Your task to perform on an android device: View the shopping cart on ebay. Search for alienware area 51 on ebay, select the first entry, add it to the cart, then select checkout. Image 0: 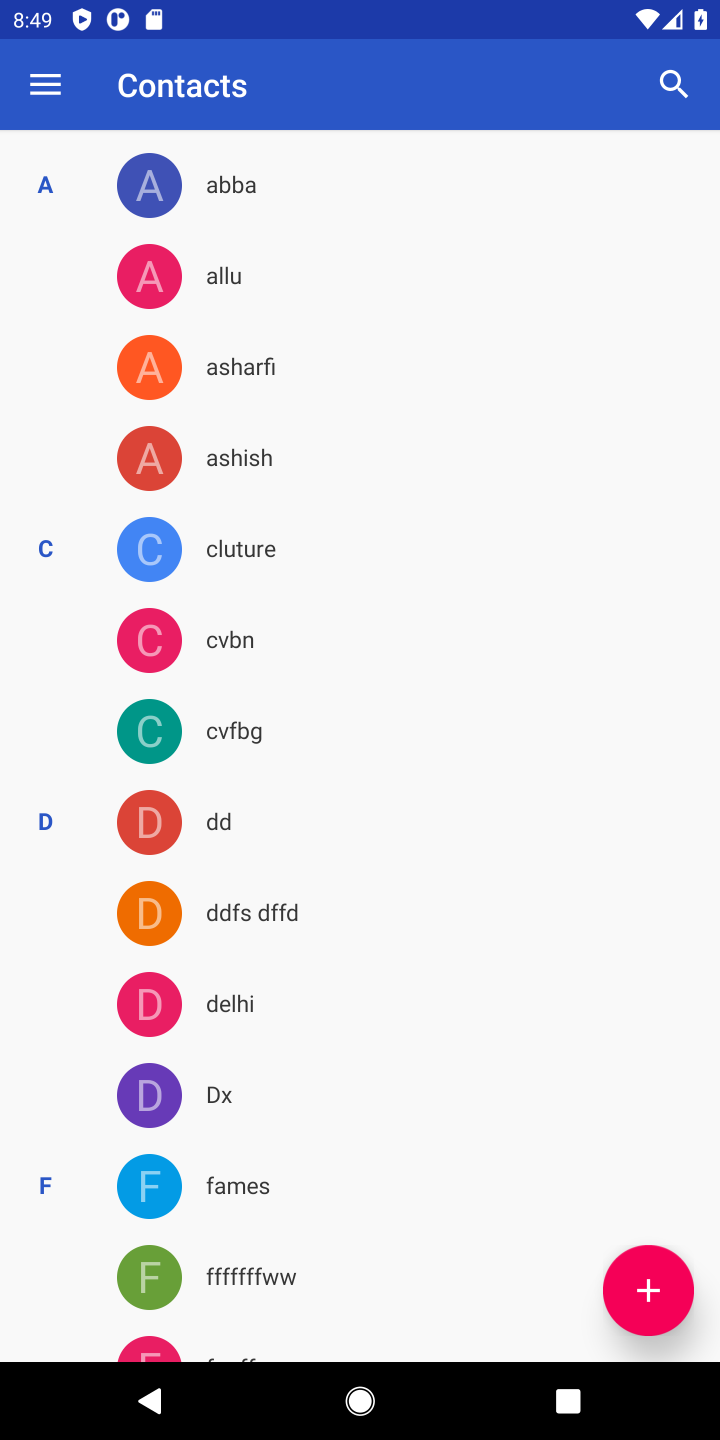
Step 0: press home button
Your task to perform on an android device: View the shopping cart on ebay. Search for alienware area 51 on ebay, select the first entry, add it to the cart, then select checkout. Image 1: 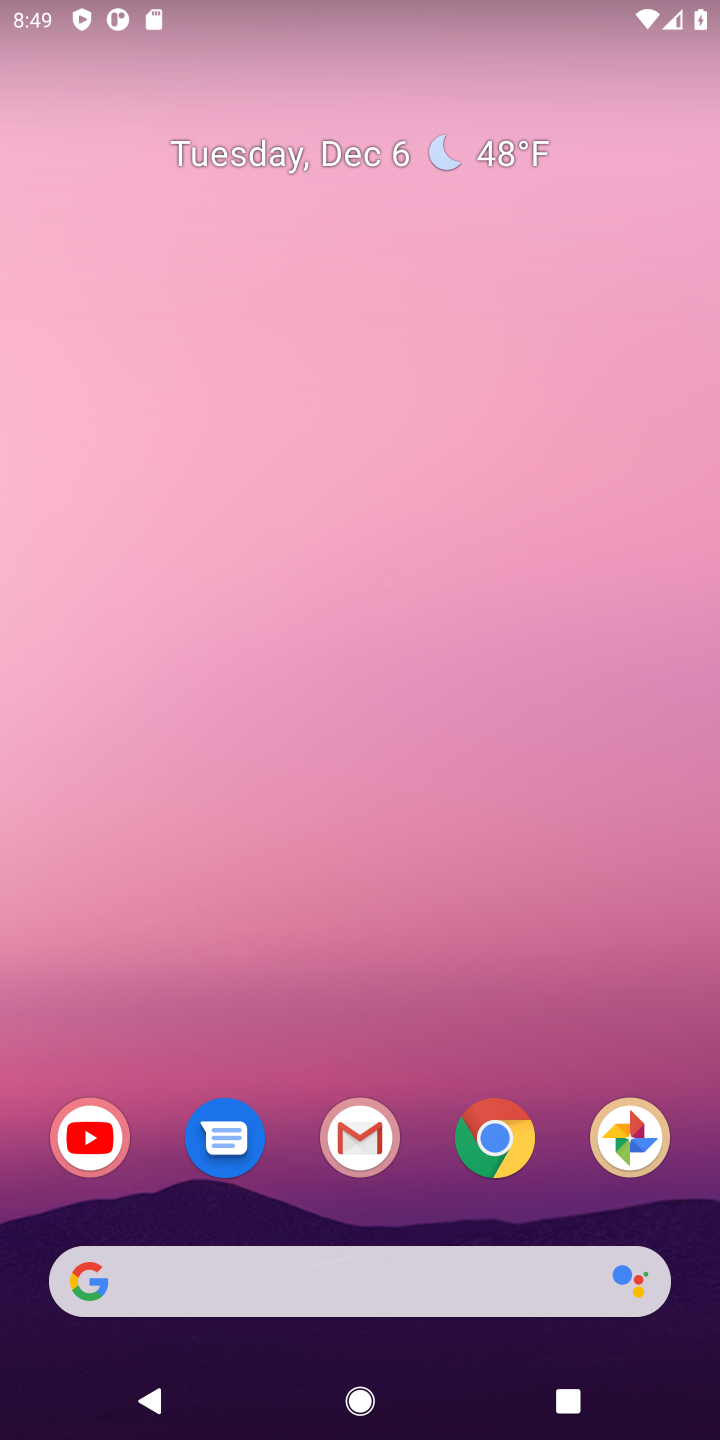
Step 1: click (485, 1137)
Your task to perform on an android device: View the shopping cart on ebay. Search for alienware area 51 on ebay, select the first entry, add it to the cart, then select checkout. Image 2: 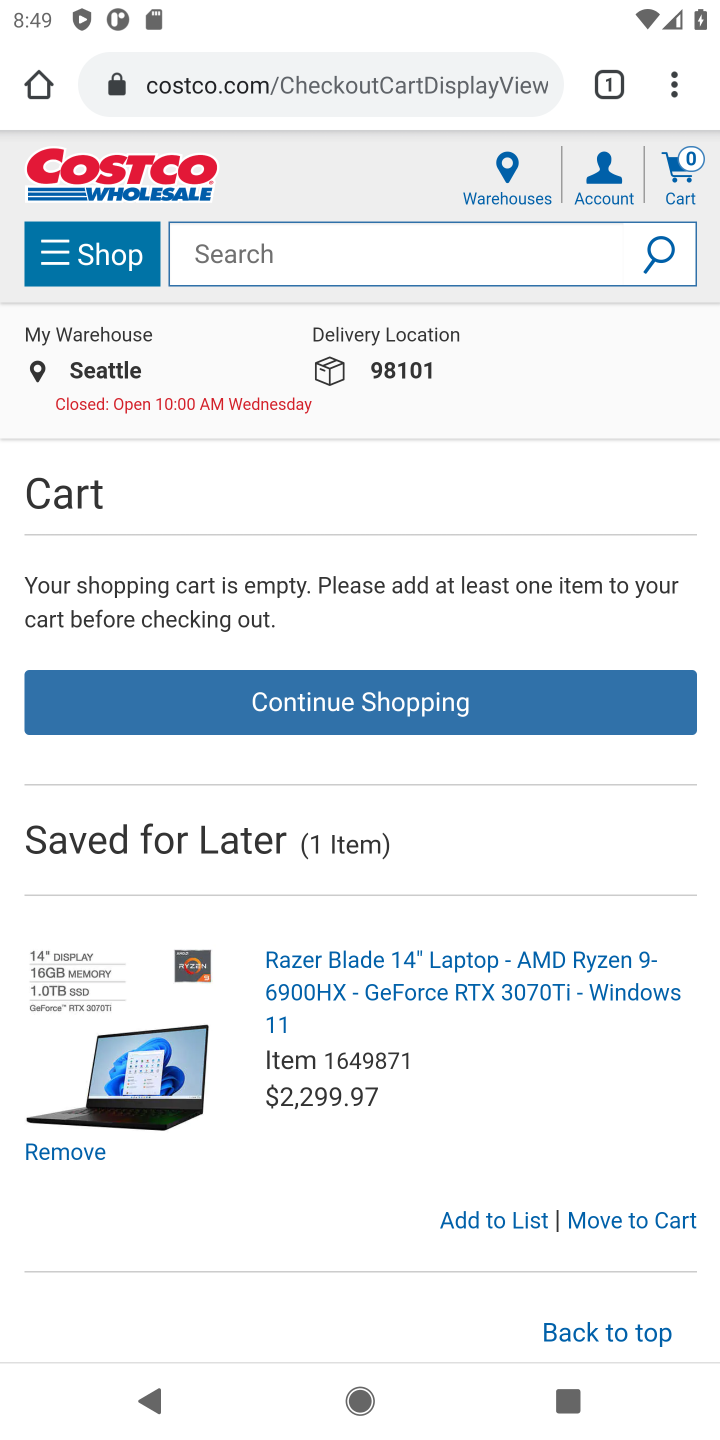
Step 2: click (255, 80)
Your task to perform on an android device: View the shopping cart on ebay. Search for alienware area 51 on ebay, select the first entry, add it to the cart, then select checkout. Image 3: 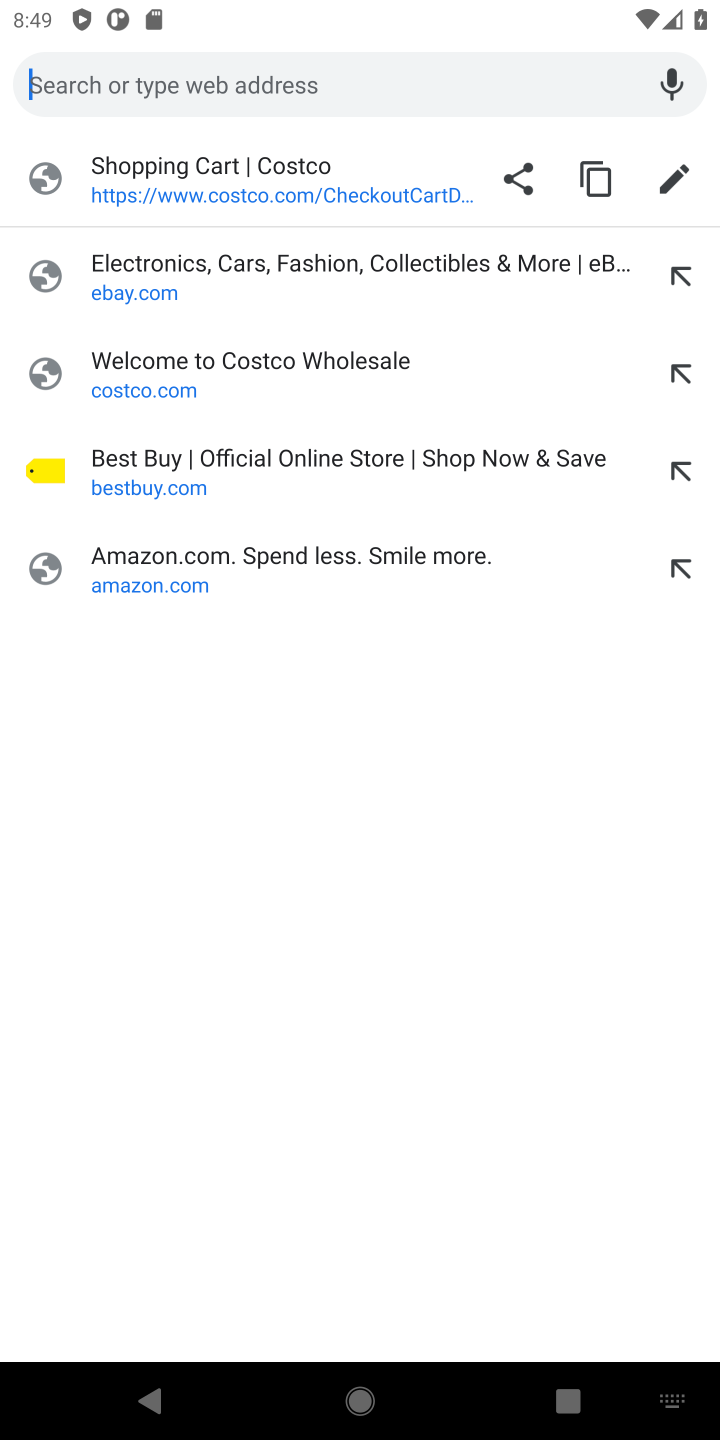
Step 3: click (133, 295)
Your task to perform on an android device: View the shopping cart on ebay. Search for alienware area 51 on ebay, select the first entry, add it to the cart, then select checkout. Image 4: 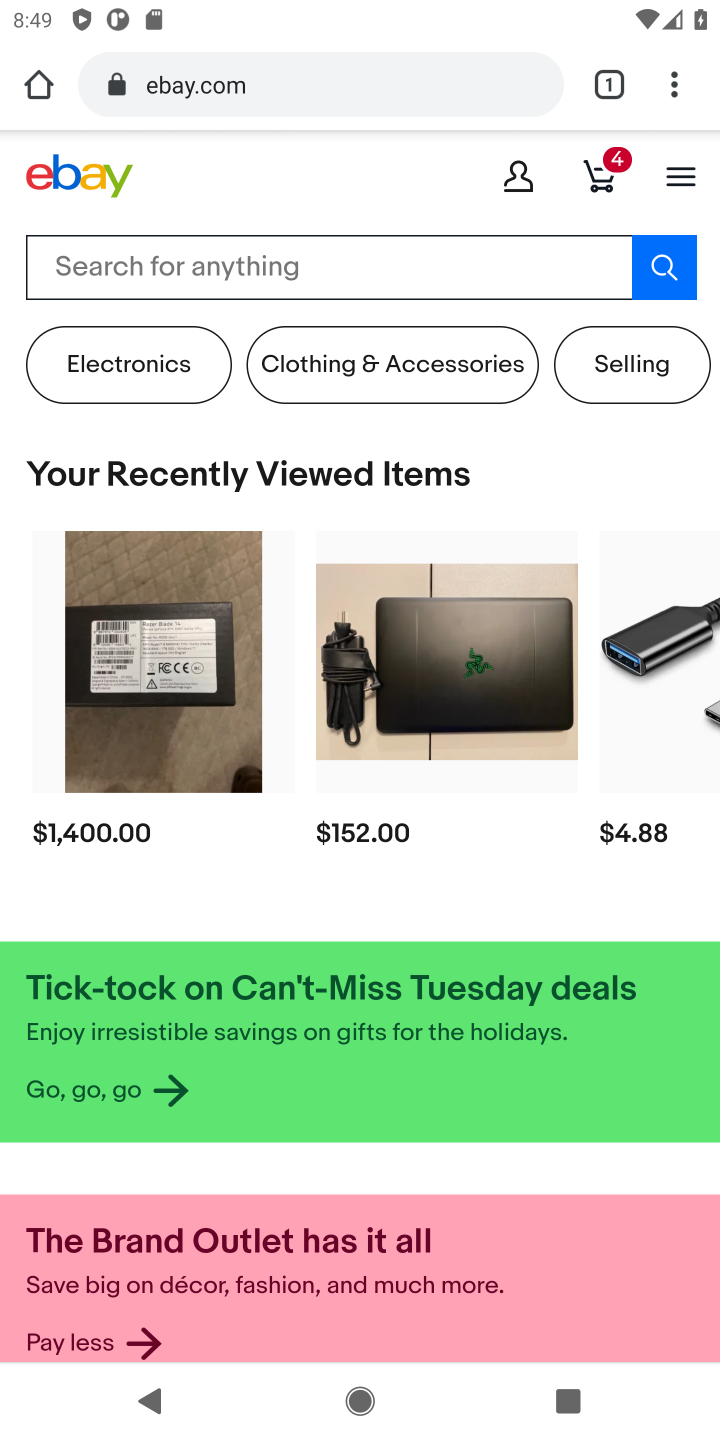
Step 4: click (600, 182)
Your task to perform on an android device: View the shopping cart on ebay. Search for alienware area 51 on ebay, select the first entry, add it to the cart, then select checkout. Image 5: 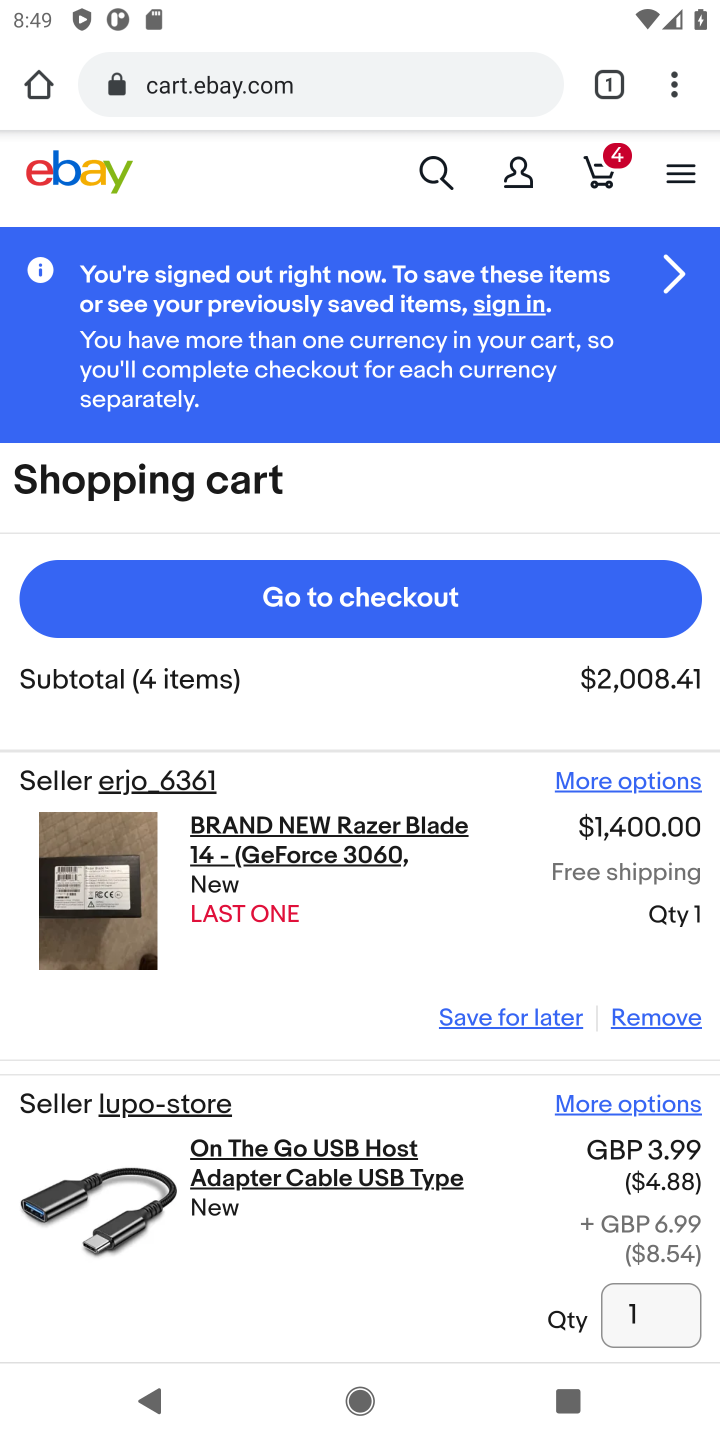
Step 5: click (444, 167)
Your task to perform on an android device: View the shopping cart on ebay. Search for alienware area 51 on ebay, select the first entry, add it to the cart, then select checkout. Image 6: 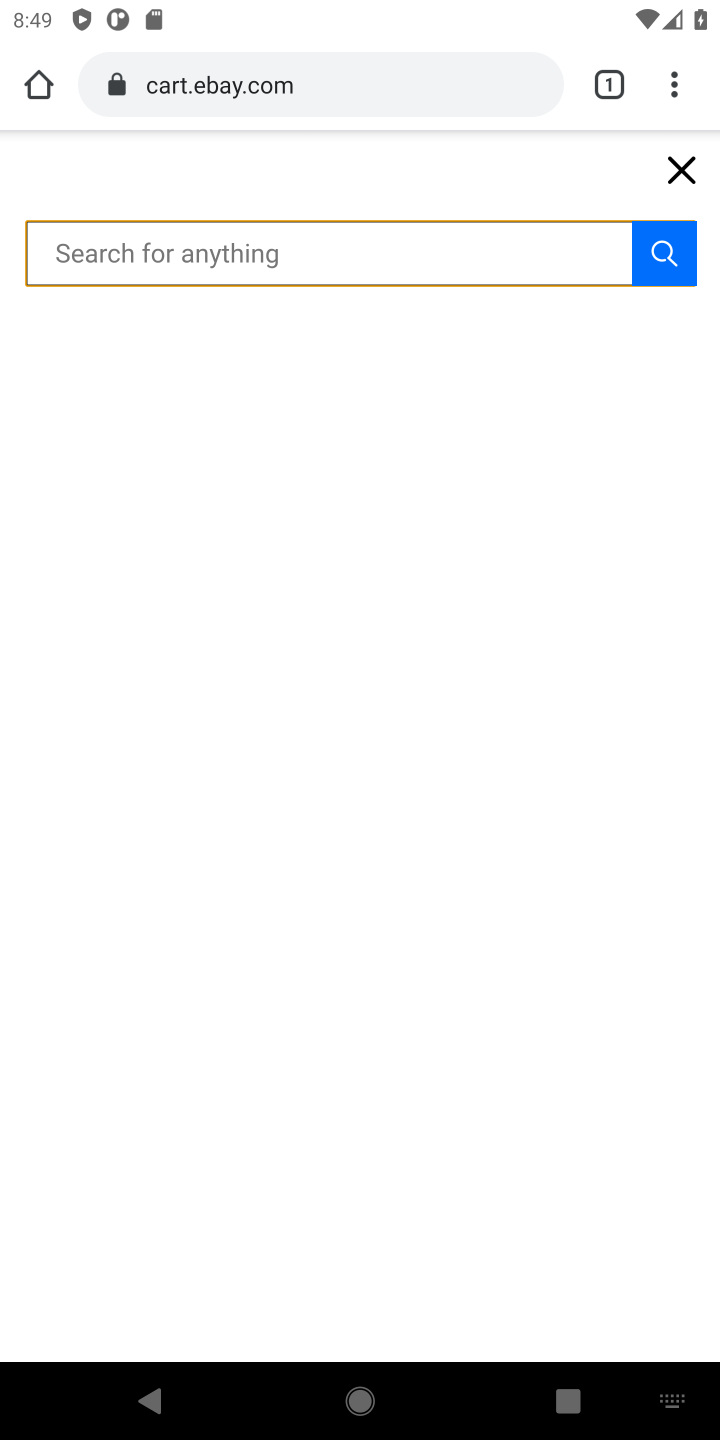
Step 6: type "alienware area 51"
Your task to perform on an android device: View the shopping cart on ebay. Search for alienware area 51 on ebay, select the first entry, add it to the cart, then select checkout. Image 7: 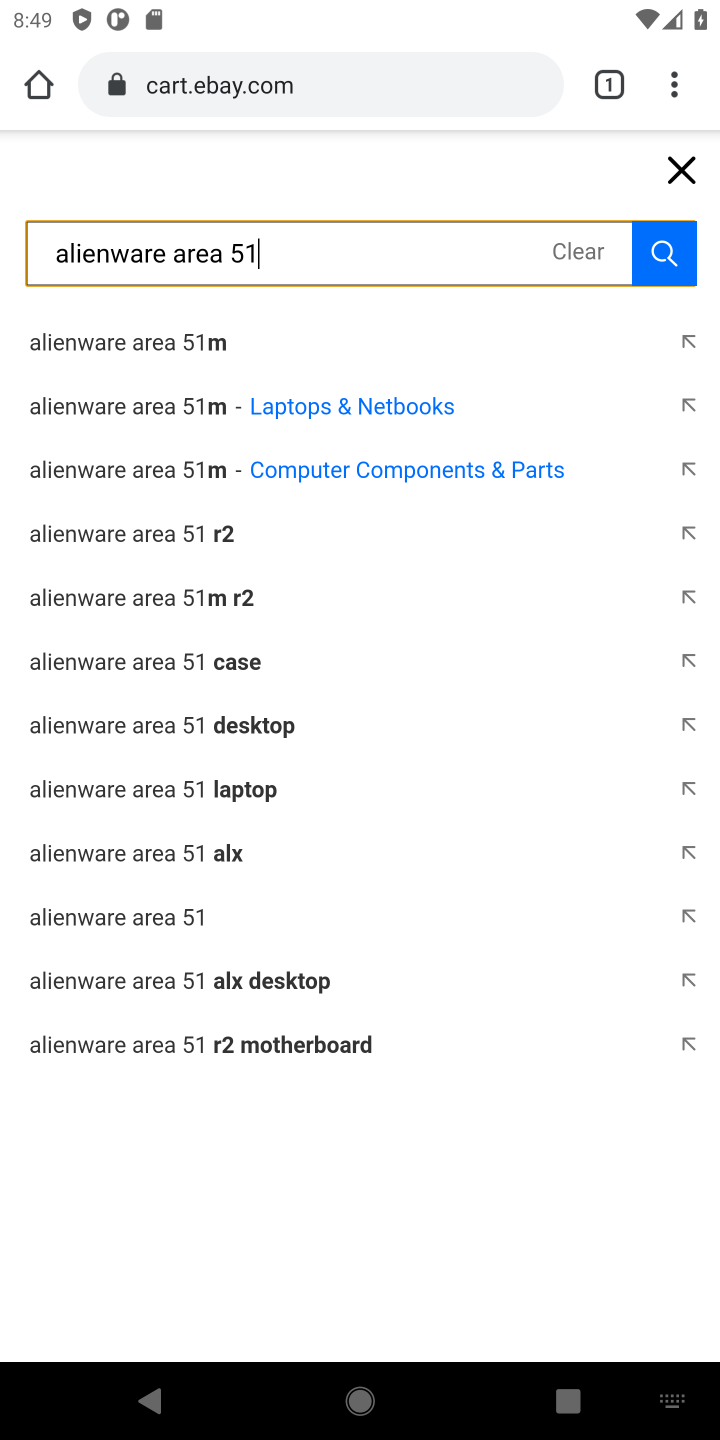
Step 7: click (146, 909)
Your task to perform on an android device: View the shopping cart on ebay. Search for alienware area 51 on ebay, select the first entry, add it to the cart, then select checkout. Image 8: 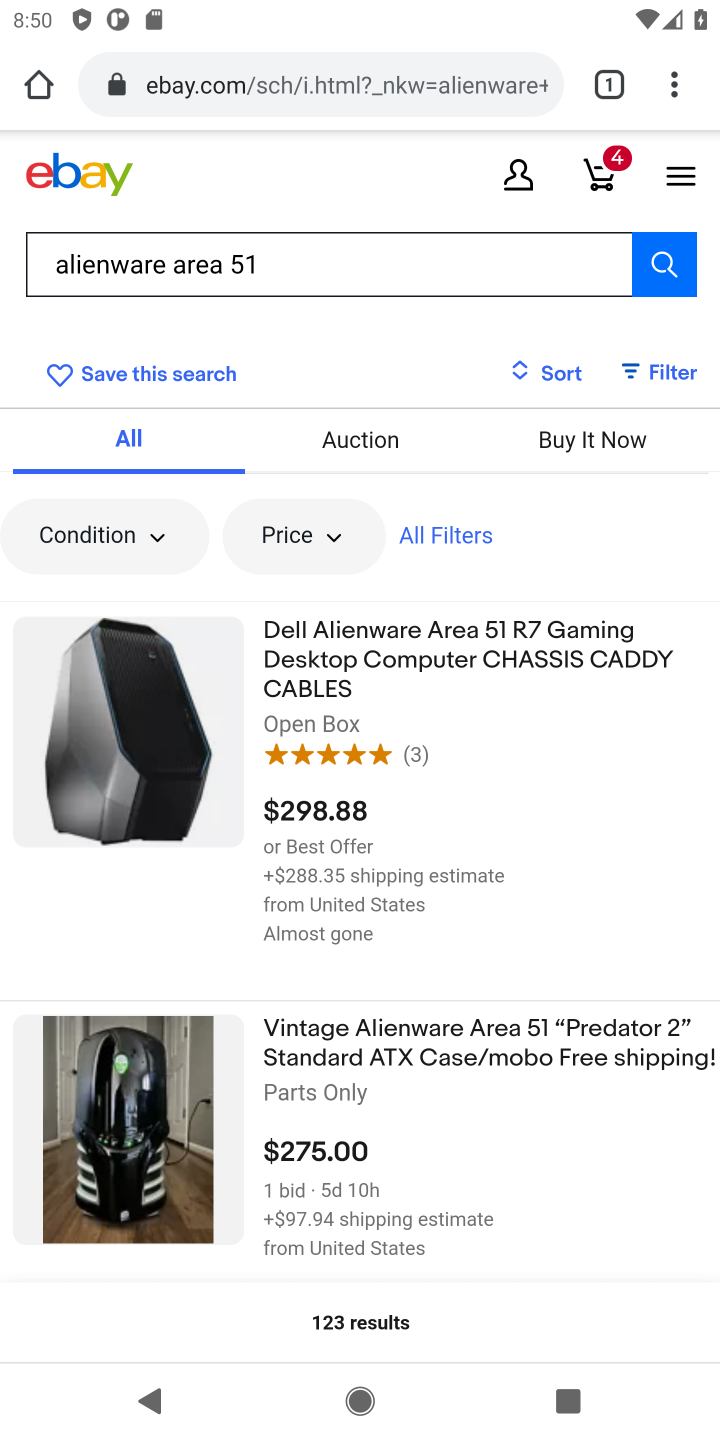
Step 8: click (345, 630)
Your task to perform on an android device: View the shopping cart on ebay. Search for alienware area 51 on ebay, select the first entry, add it to the cart, then select checkout. Image 9: 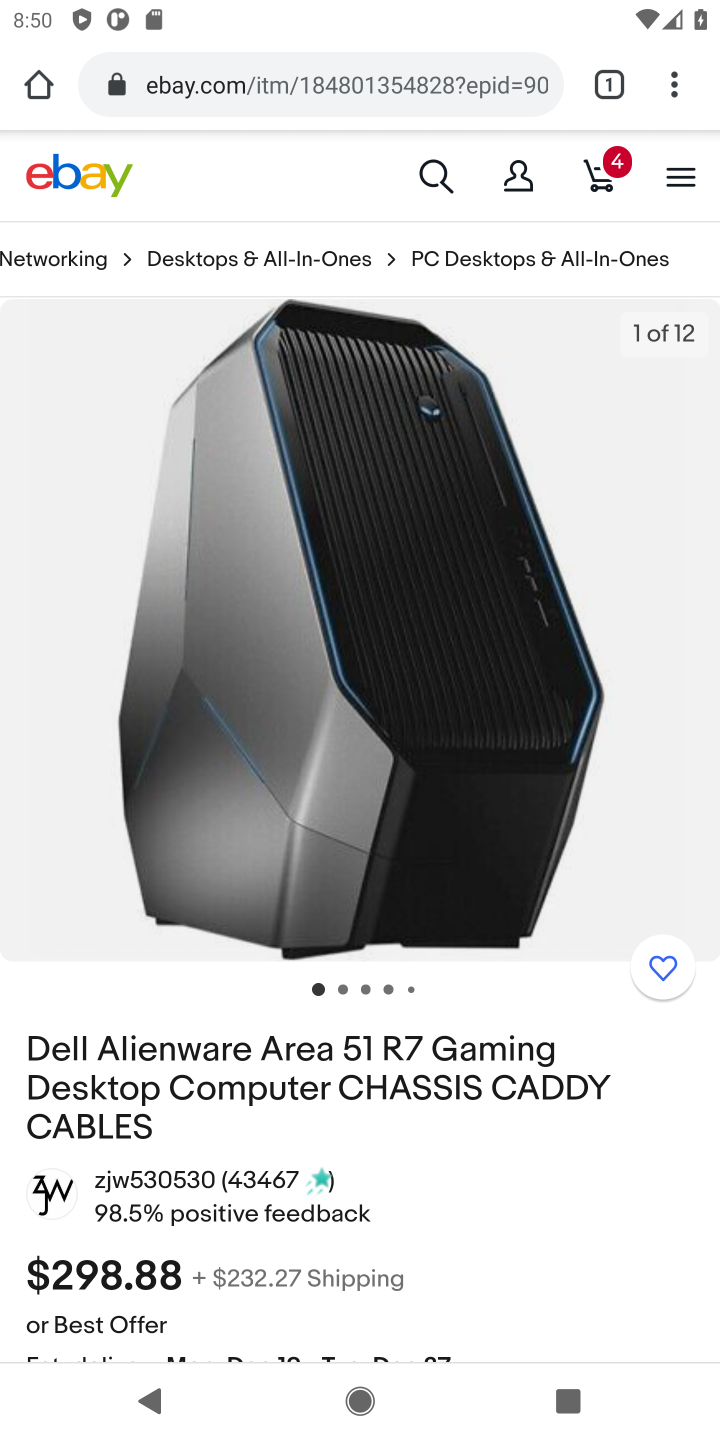
Step 9: drag from (431, 1034) to (417, 526)
Your task to perform on an android device: View the shopping cart on ebay. Search for alienware area 51 on ebay, select the first entry, add it to the cart, then select checkout. Image 10: 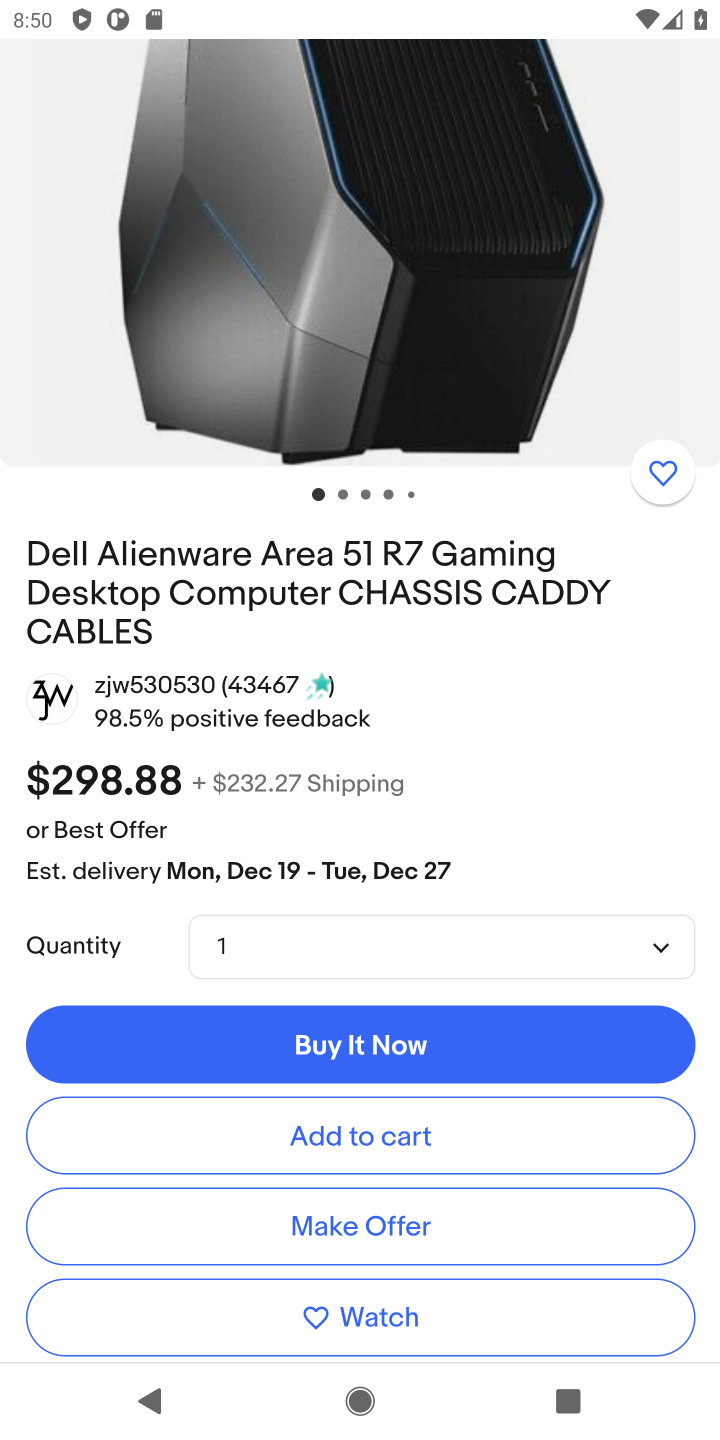
Step 10: click (293, 1135)
Your task to perform on an android device: View the shopping cart on ebay. Search for alienware area 51 on ebay, select the first entry, add it to the cart, then select checkout. Image 11: 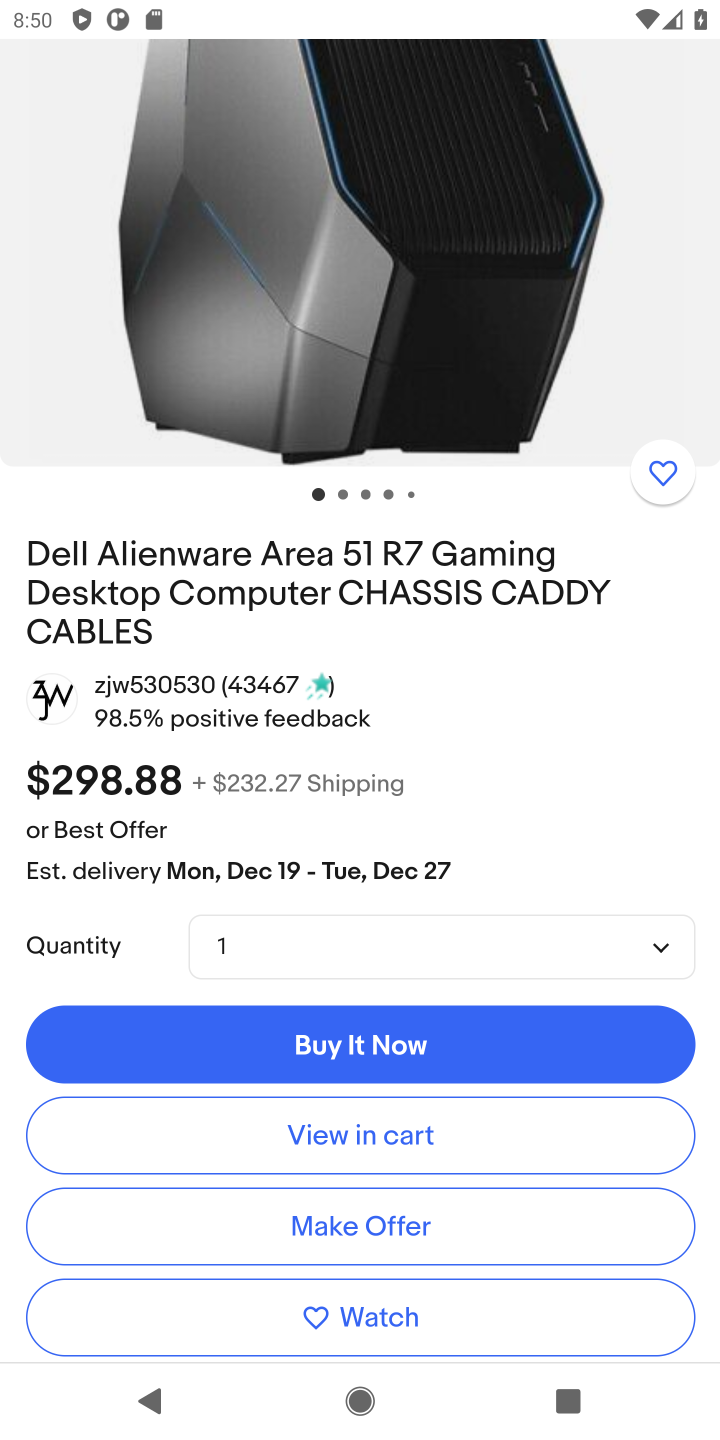
Step 11: click (293, 1135)
Your task to perform on an android device: View the shopping cart on ebay. Search for alienware area 51 on ebay, select the first entry, add it to the cart, then select checkout. Image 12: 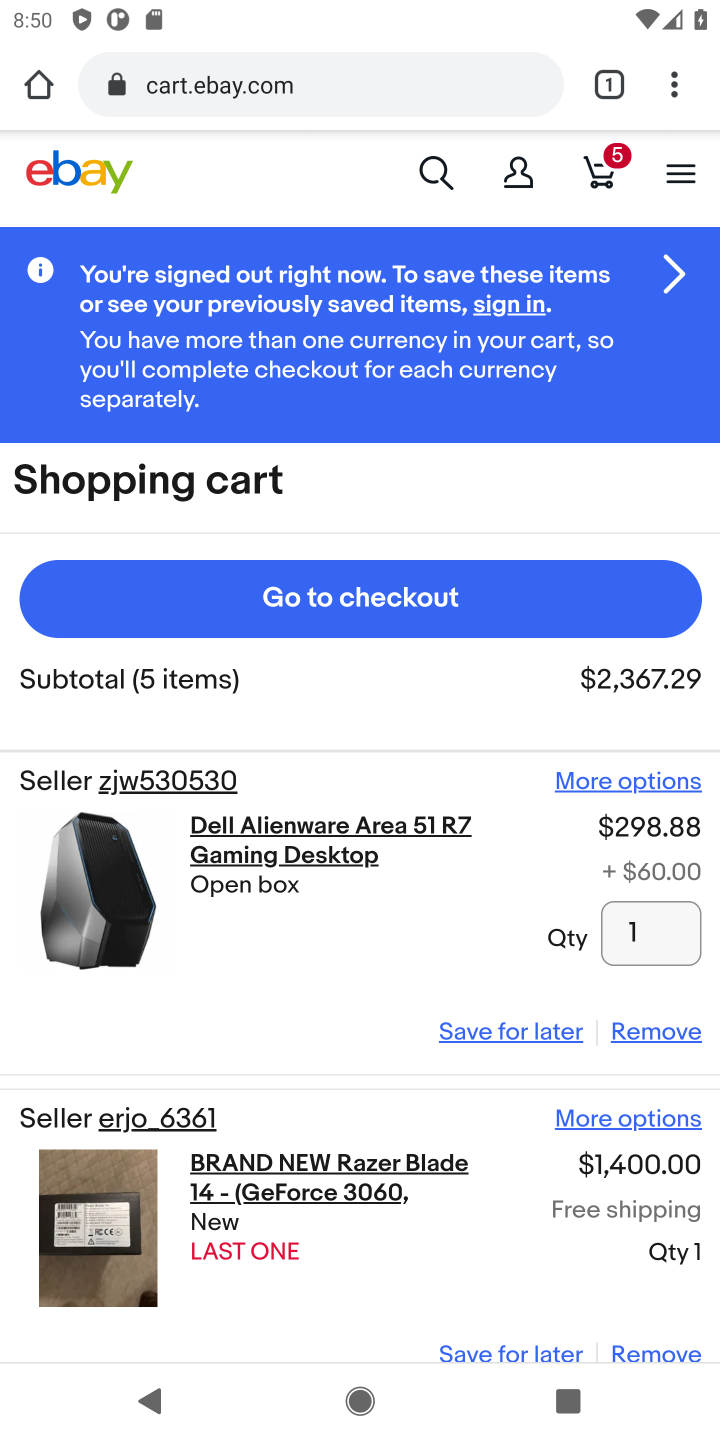
Step 12: click (309, 610)
Your task to perform on an android device: View the shopping cart on ebay. Search for alienware area 51 on ebay, select the first entry, add it to the cart, then select checkout. Image 13: 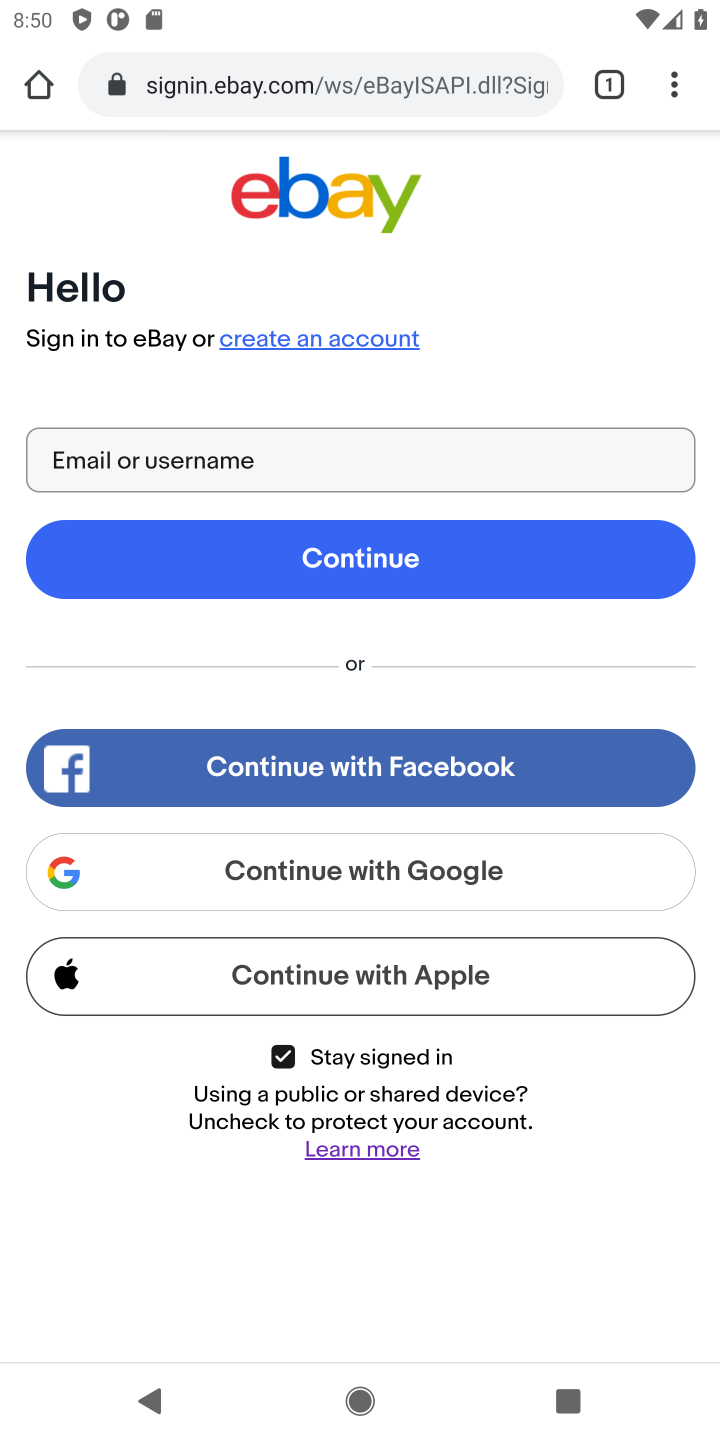
Step 13: task complete